Your task to perform on an android device: What's the weather? Image 0: 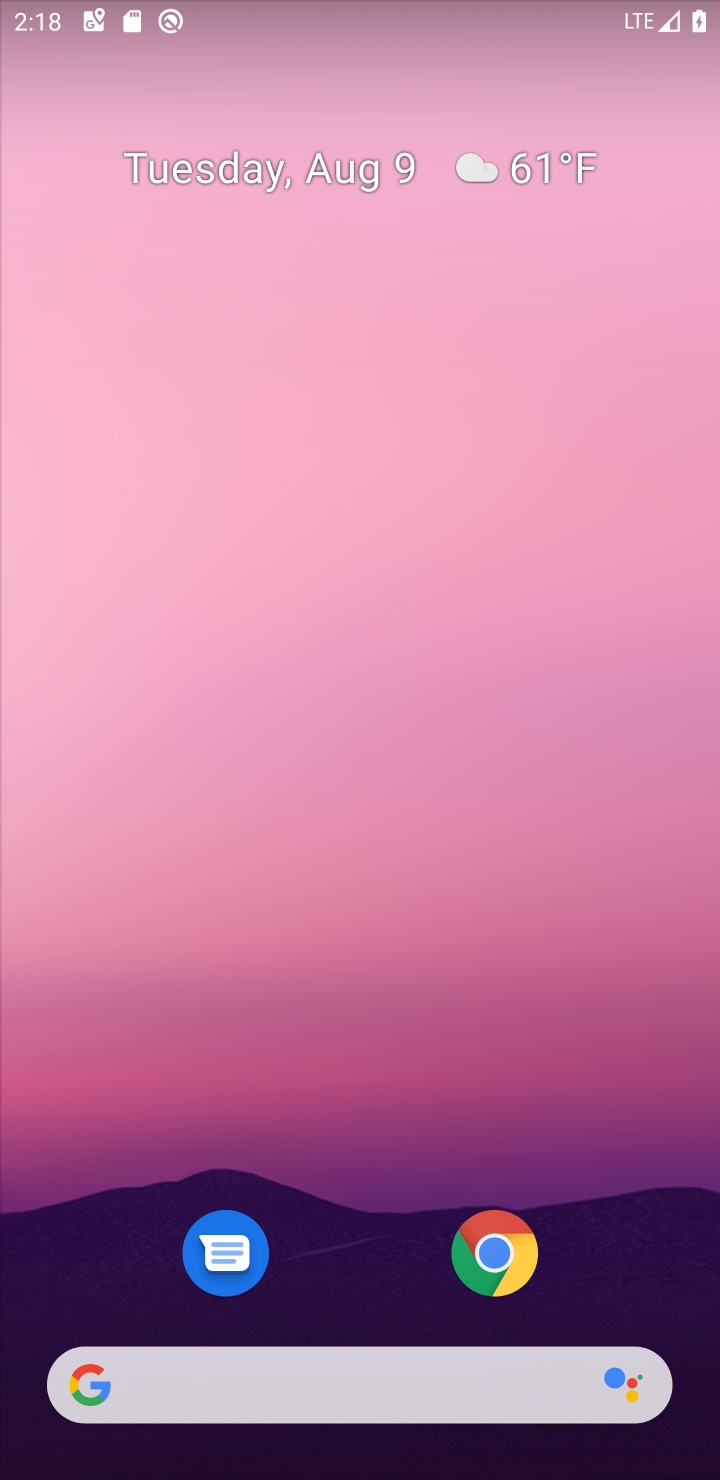
Step 0: drag from (553, 890) to (272, 0)
Your task to perform on an android device: What's the weather? Image 1: 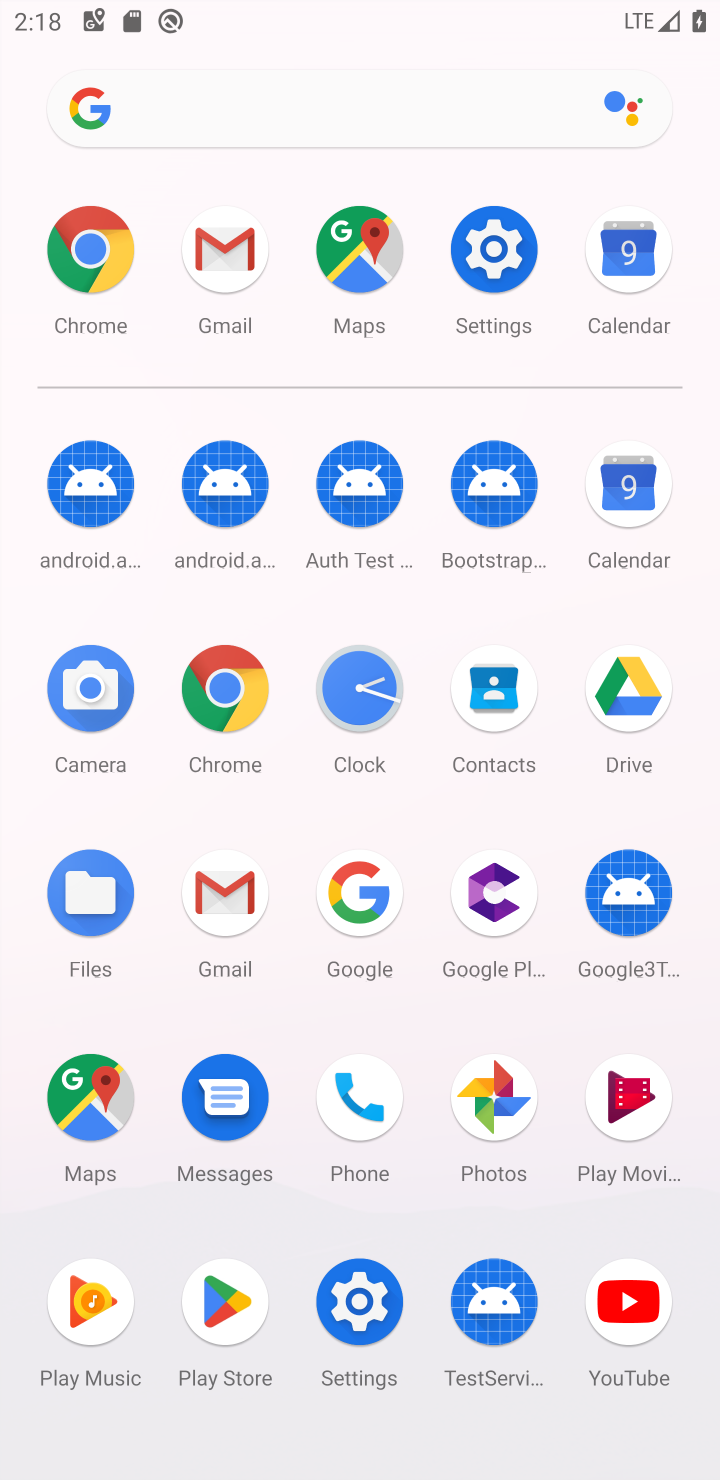
Step 1: click (345, 900)
Your task to perform on an android device: What's the weather? Image 2: 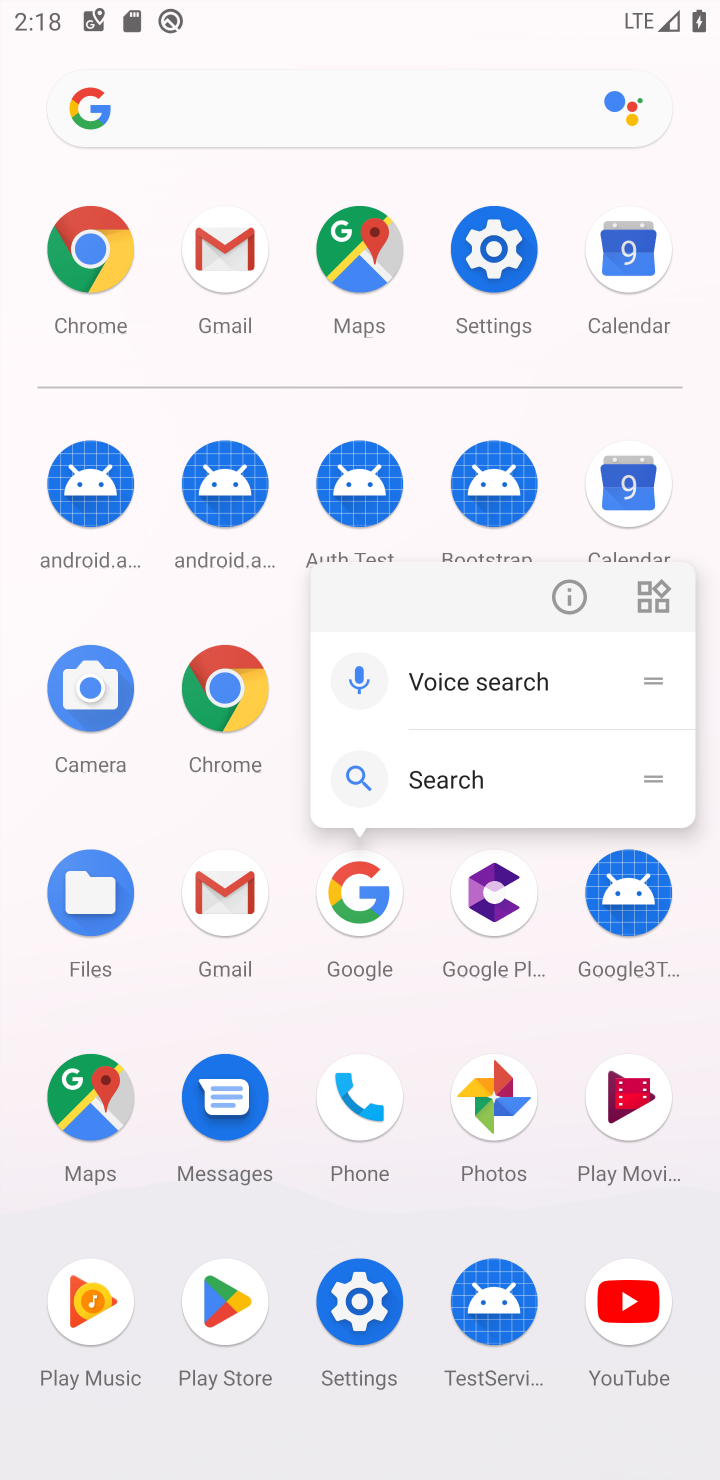
Step 2: click (344, 872)
Your task to perform on an android device: What's the weather? Image 3: 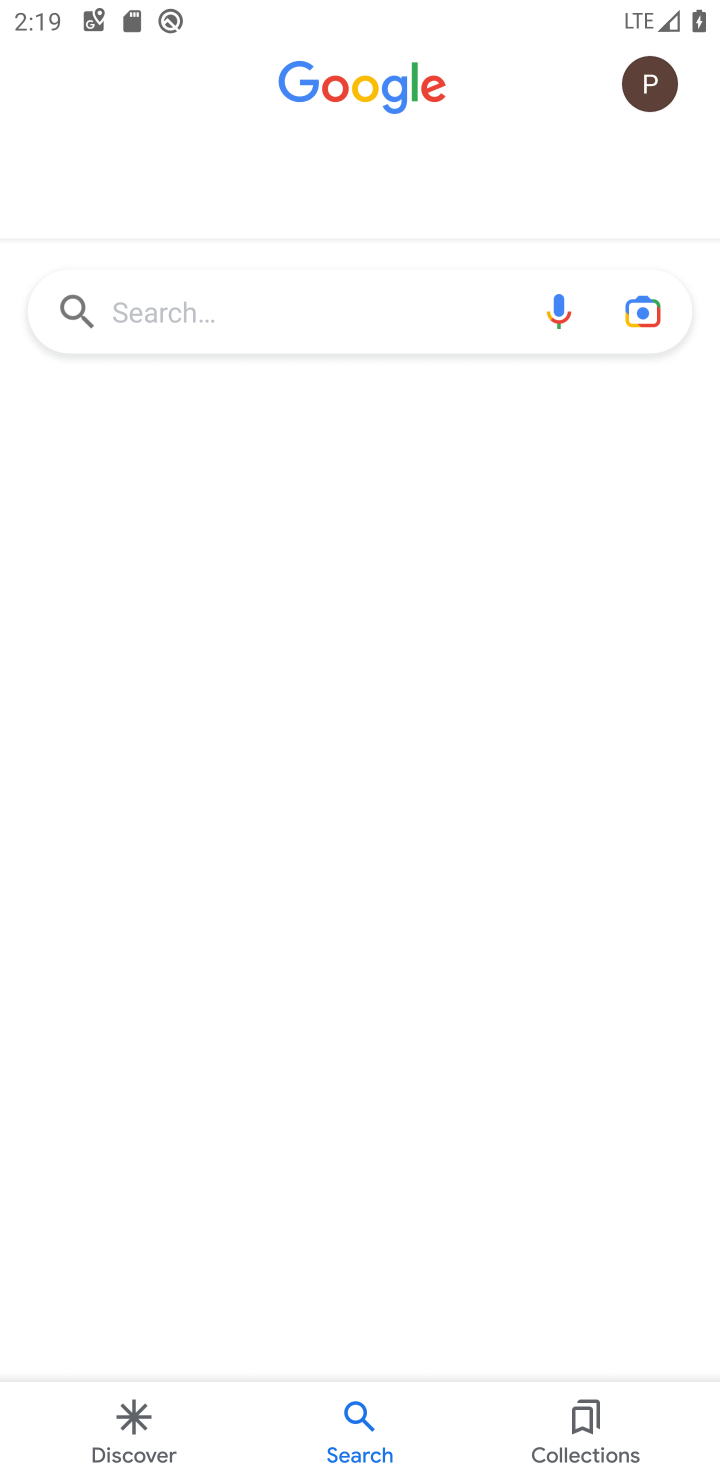
Step 3: click (246, 313)
Your task to perform on an android device: What's the weather? Image 4: 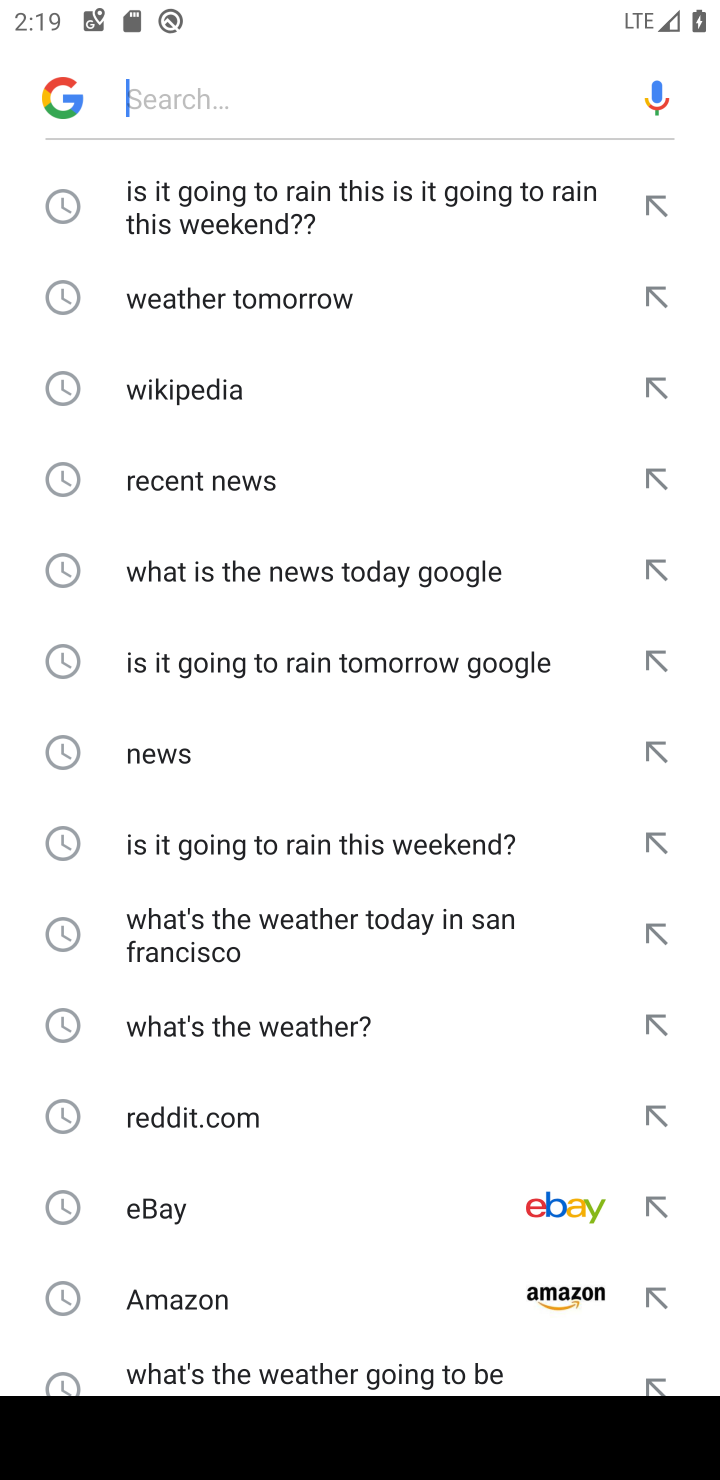
Step 4: type "What's the weather?"
Your task to perform on an android device: What's the weather? Image 5: 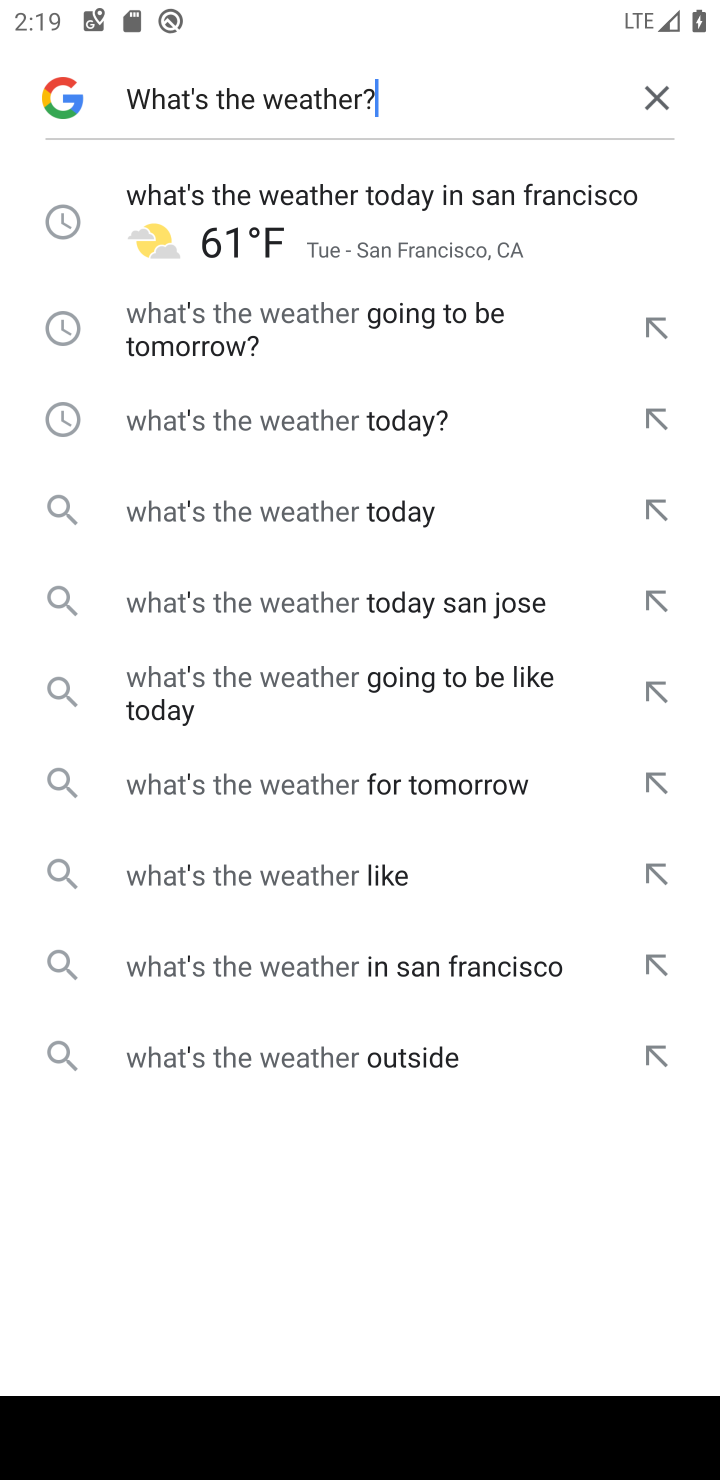
Step 5: task complete